Your task to perform on an android device: Open Maps and search for coffee Image 0: 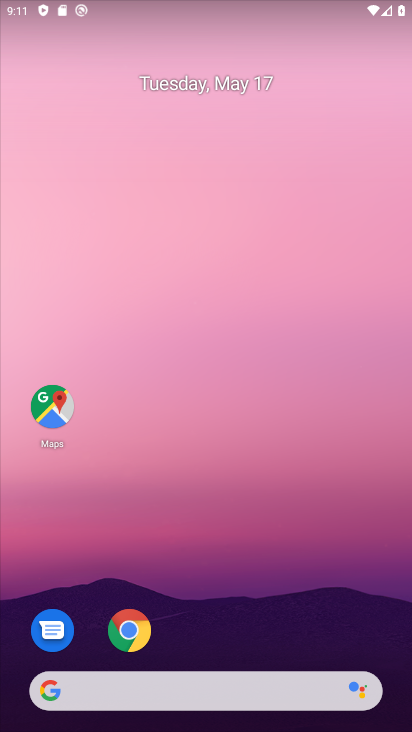
Step 0: click (50, 416)
Your task to perform on an android device: Open Maps and search for coffee Image 1: 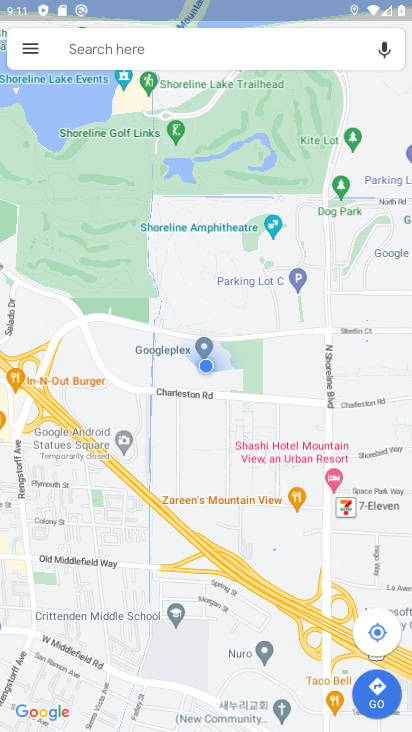
Step 1: click (160, 44)
Your task to perform on an android device: Open Maps and search for coffee Image 2: 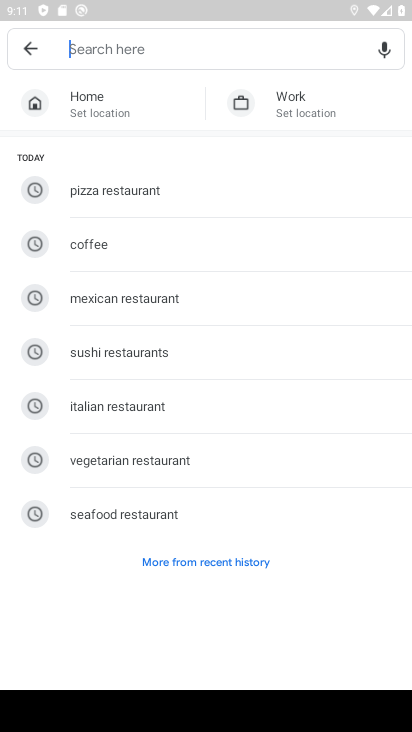
Step 2: click (133, 250)
Your task to perform on an android device: Open Maps and search for coffee Image 3: 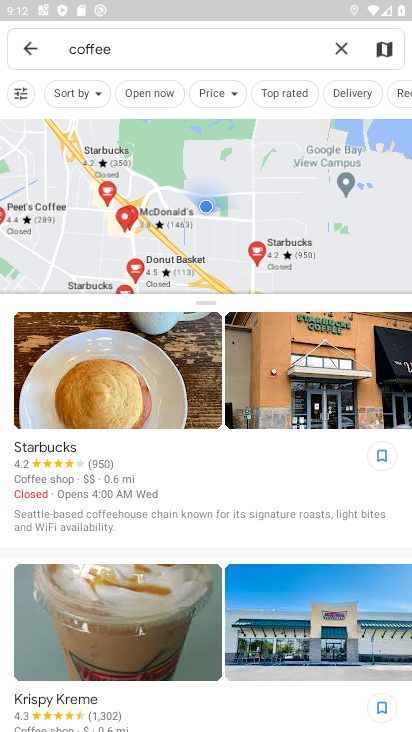
Step 3: task complete